Your task to perform on an android device: turn pop-ups off in chrome Image 0: 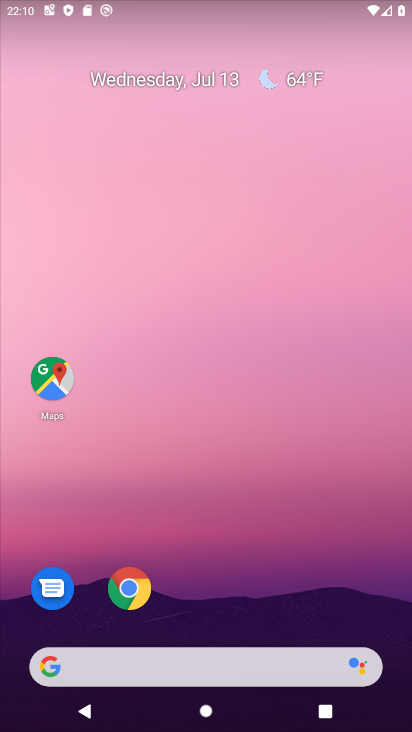
Step 0: click (130, 584)
Your task to perform on an android device: turn pop-ups off in chrome Image 1: 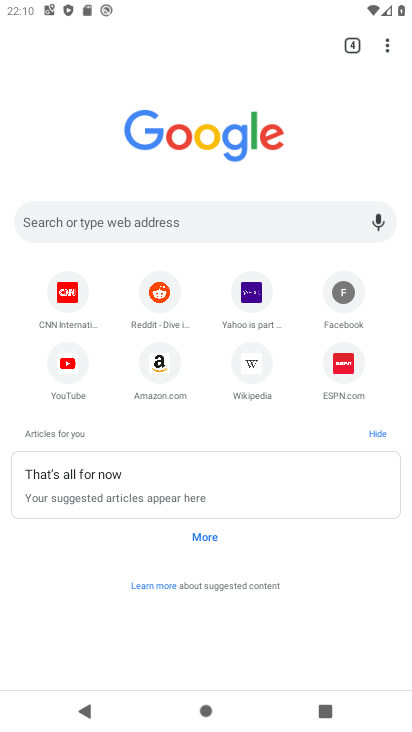
Step 1: drag from (384, 45) to (251, 375)
Your task to perform on an android device: turn pop-ups off in chrome Image 2: 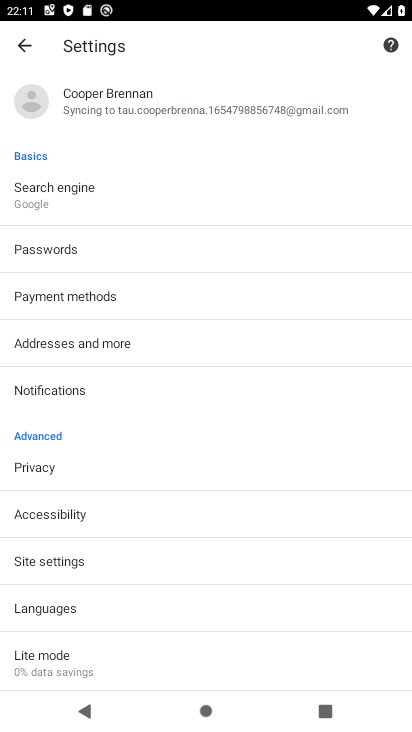
Step 2: click (55, 555)
Your task to perform on an android device: turn pop-ups off in chrome Image 3: 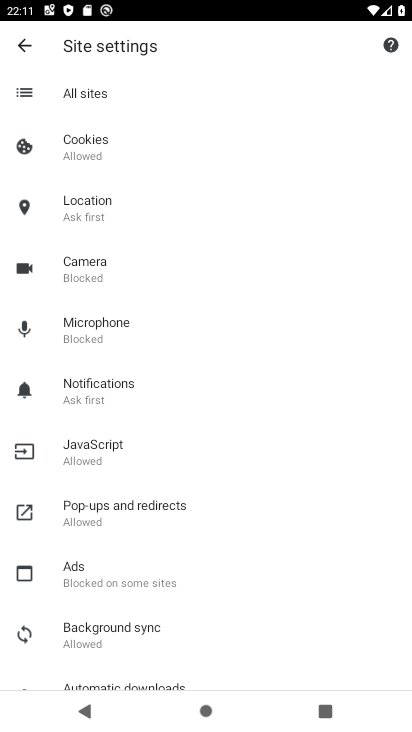
Step 3: click (130, 511)
Your task to perform on an android device: turn pop-ups off in chrome Image 4: 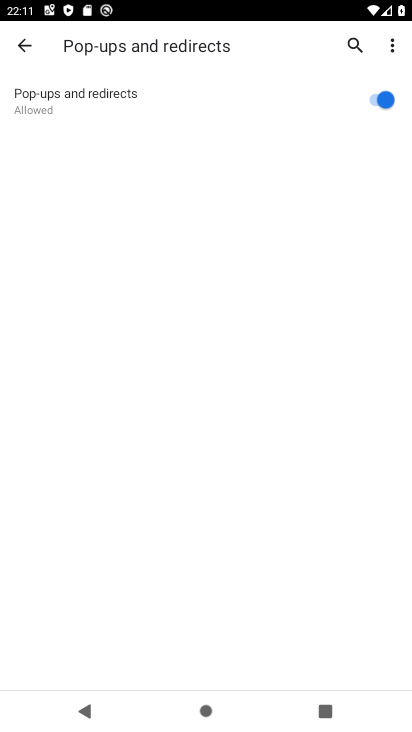
Step 4: click (381, 88)
Your task to perform on an android device: turn pop-ups off in chrome Image 5: 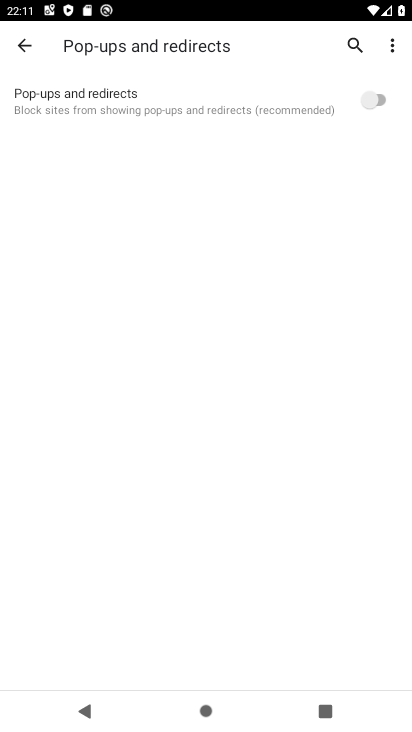
Step 5: task complete